Your task to perform on an android device: Go to notification settings Image 0: 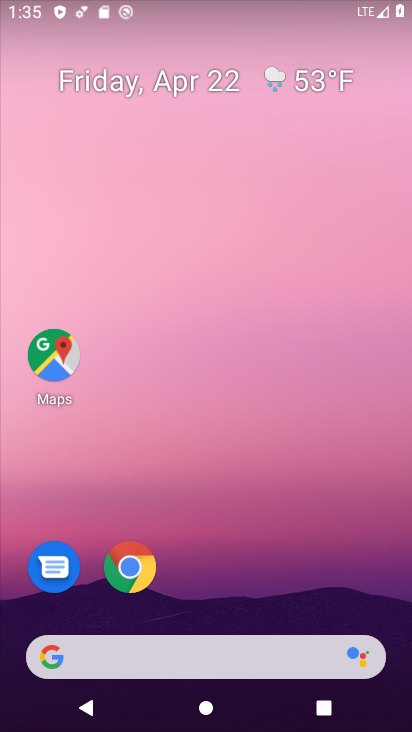
Step 0: drag from (358, 595) to (289, 43)
Your task to perform on an android device: Go to notification settings Image 1: 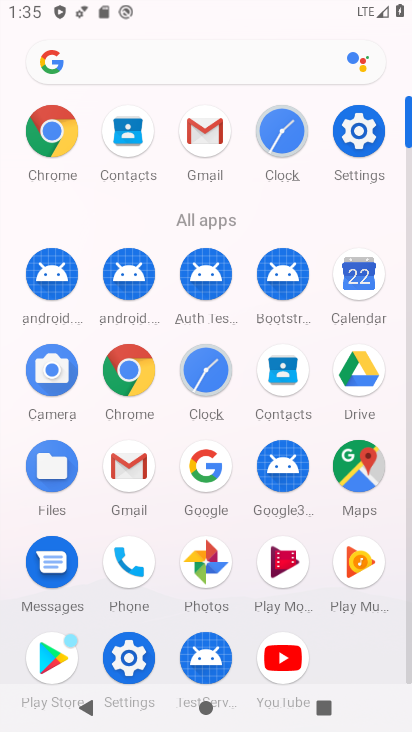
Step 1: click (131, 656)
Your task to perform on an android device: Go to notification settings Image 2: 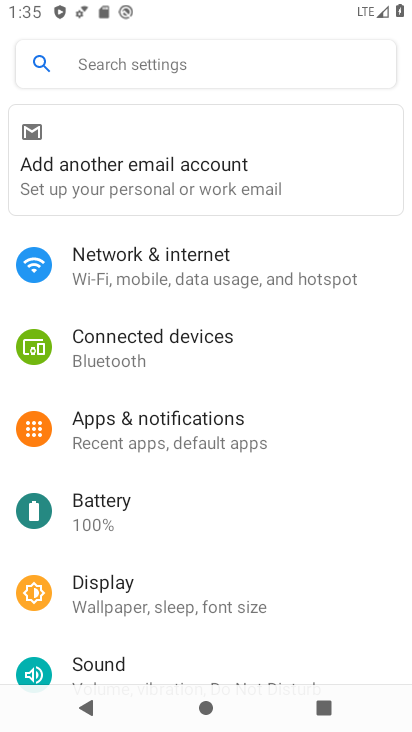
Step 2: click (159, 427)
Your task to perform on an android device: Go to notification settings Image 3: 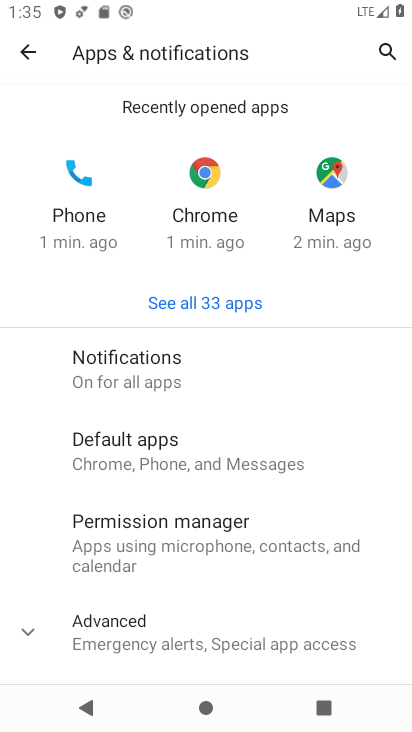
Step 3: click (89, 348)
Your task to perform on an android device: Go to notification settings Image 4: 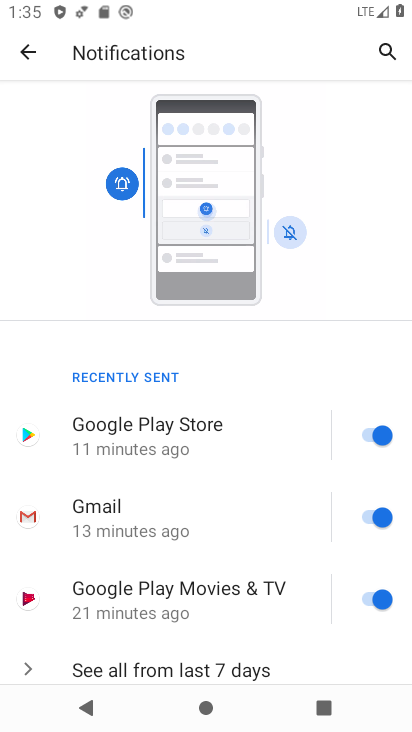
Step 4: drag from (260, 534) to (225, 155)
Your task to perform on an android device: Go to notification settings Image 5: 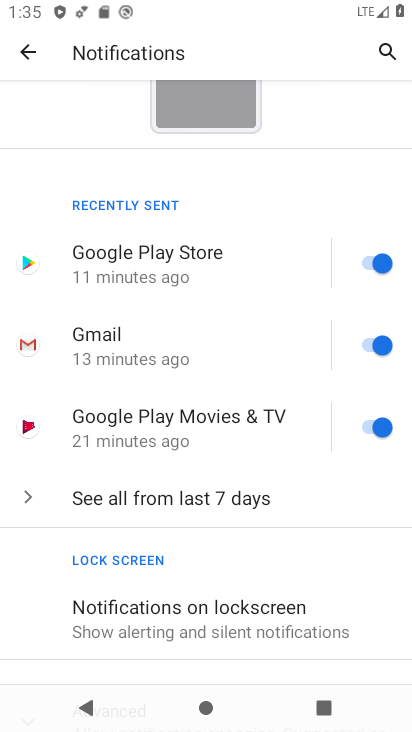
Step 5: drag from (214, 510) to (206, 210)
Your task to perform on an android device: Go to notification settings Image 6: 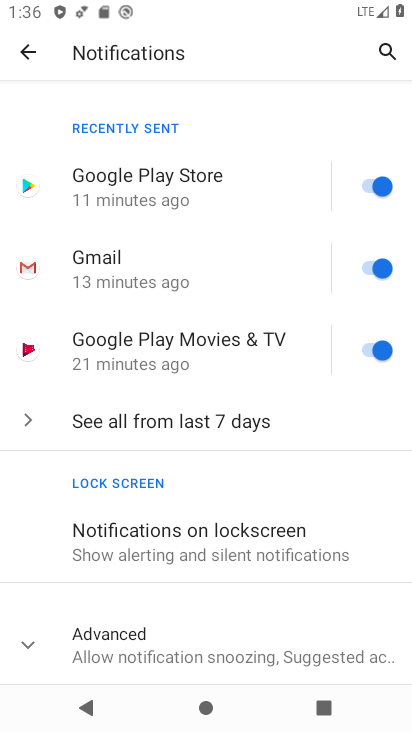
Step 6: click (25, 647)
Your task to perform on an android device: Go to notification settings Image 7: 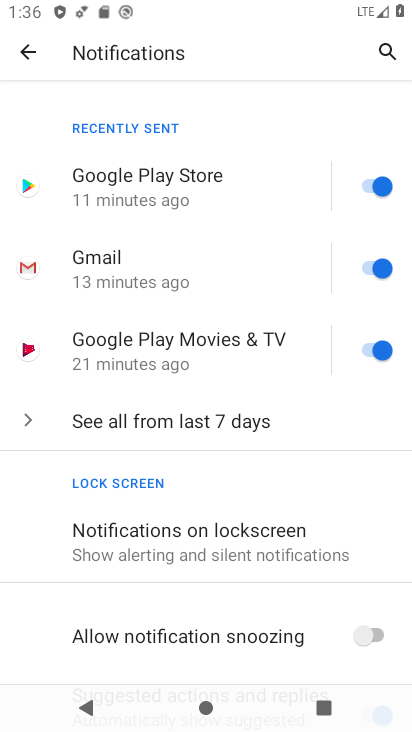
Step 7: task complete